Your task to perform on an android device: Open wifi settings Image 0: 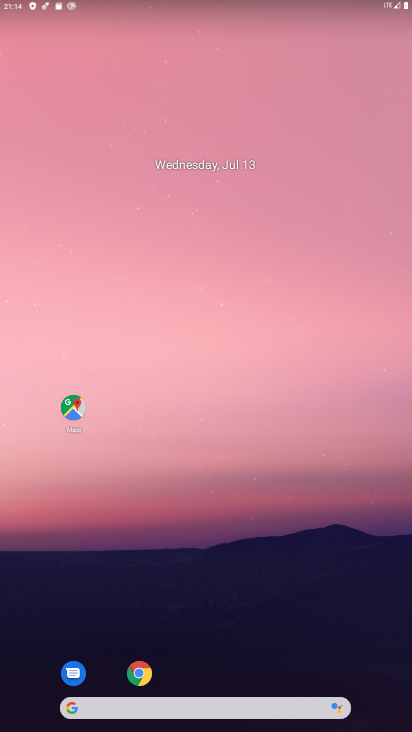
Step 0: click (389, 433)
Your task to perform on an android device: Open wifi settings Image 1: 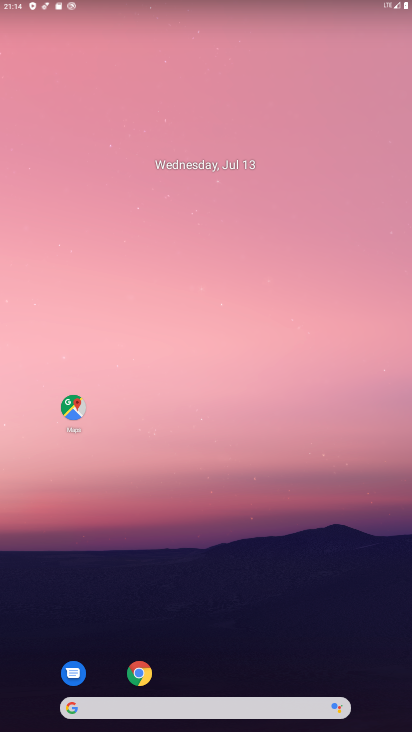
Step 1: drag from (192, 673) to (231, 147)
Your task to perform on an android device: Open wifi settings Image 2: 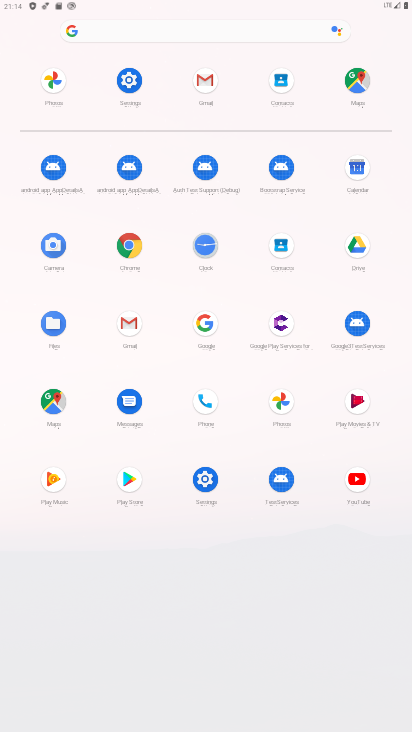
Step 2: click (202, 476)
Your task to perform on an android device: Open wifi settings Image 3: 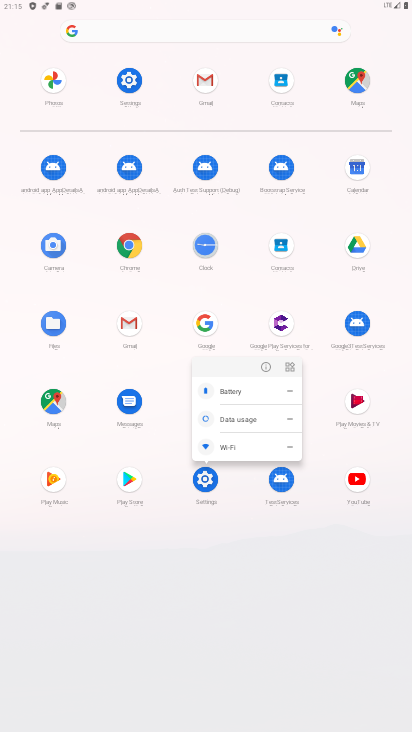
Step 3: click (267, 364)
Your task to perform on an android device: Open wifi settings Image 4: 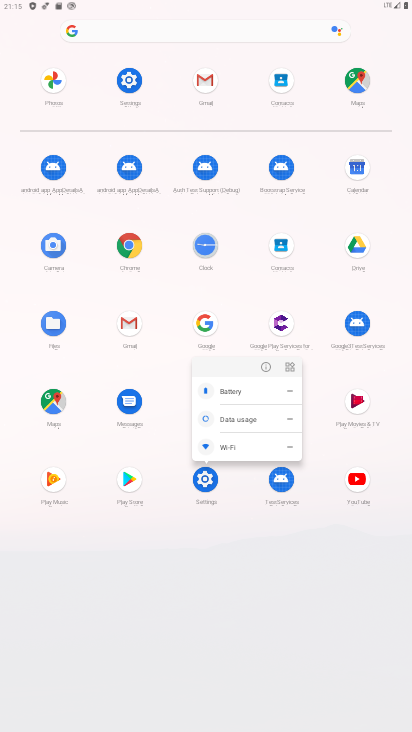
Step 4: click (267, 362)
Your task to perform on an android device: Open wifi settings Image 5: 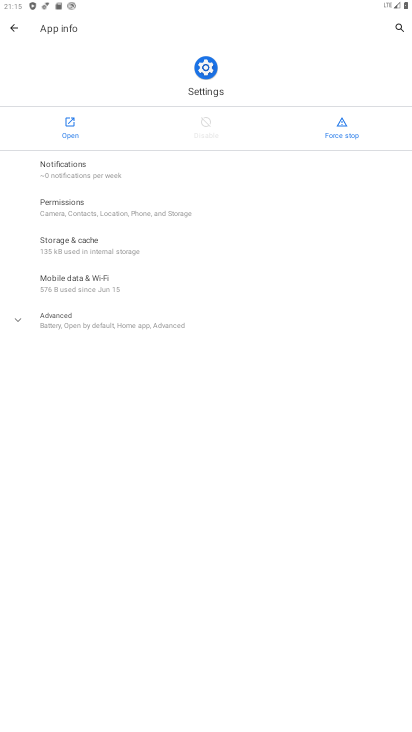
Step 5: click (67, 129)
Your task to perform on an android device: Open wifi settings Image 6: 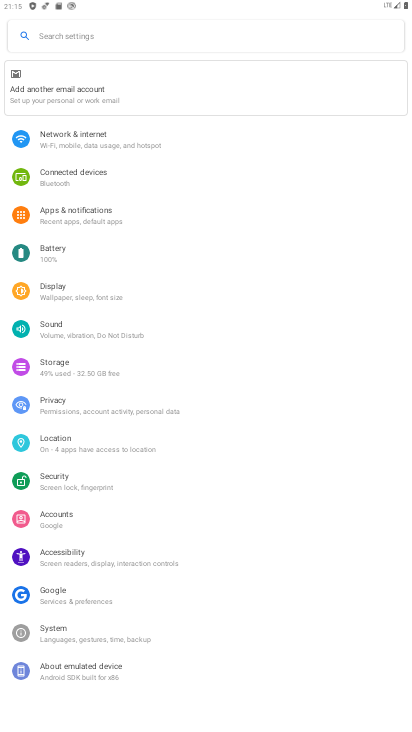
Step 6: drag from (109, 194) to (165, 615)
Your task to perform on an android device: Open wifi settings Image 7: 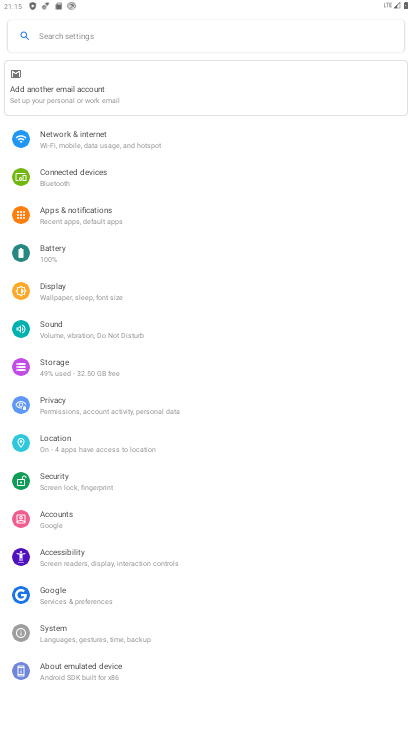
Step 7: click (167, 146)
Your task to perform on an android device: Open wifi settings Image 8: 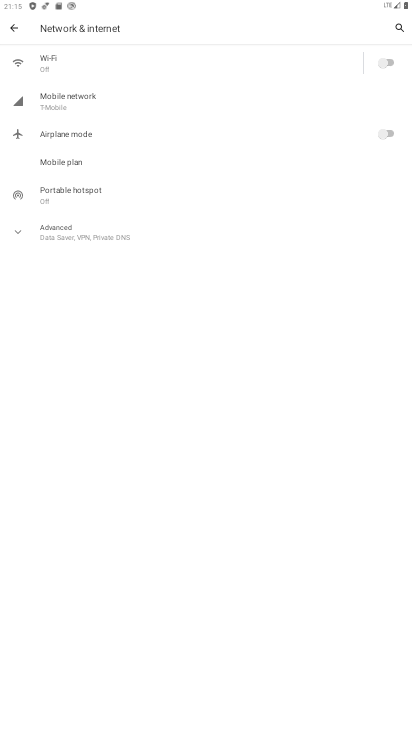
Step 8: click (84, 55)
Your task to perform on an android device: Open wifi settings Image 9: 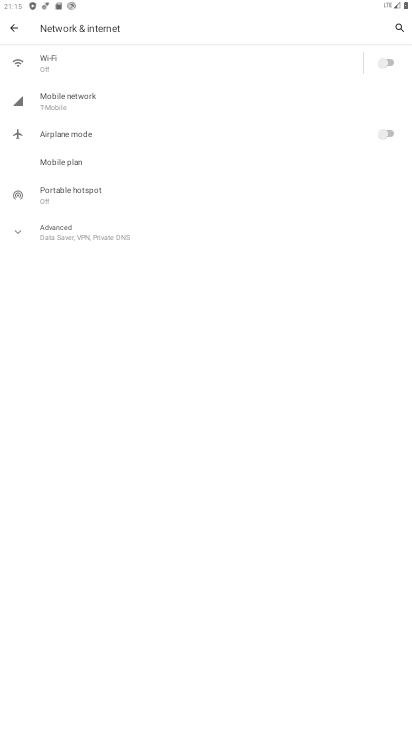
Step 9: click (84, 55)
Your task to perform on an android device: Open wifi settings Image 10: 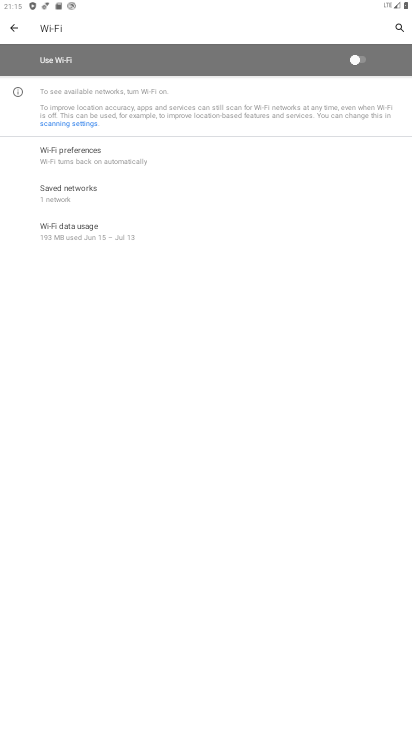
Step 10: click (19, 28)
Your task to perform on an android device: Open wifi settings Image 11: 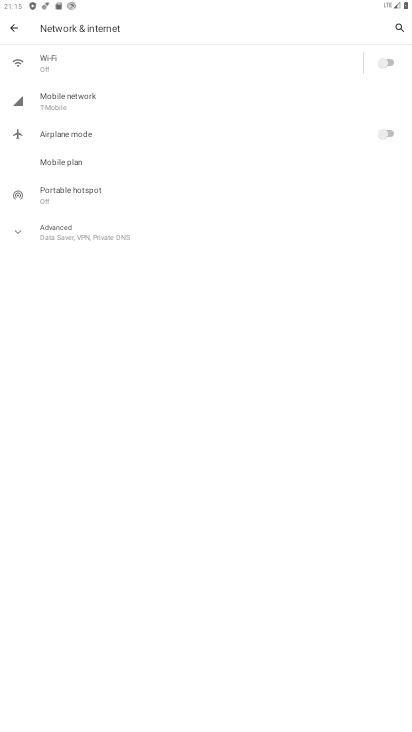
Step 11: click (305, 67)
Your task to perform on an android device: Open wifi settings Image 12: 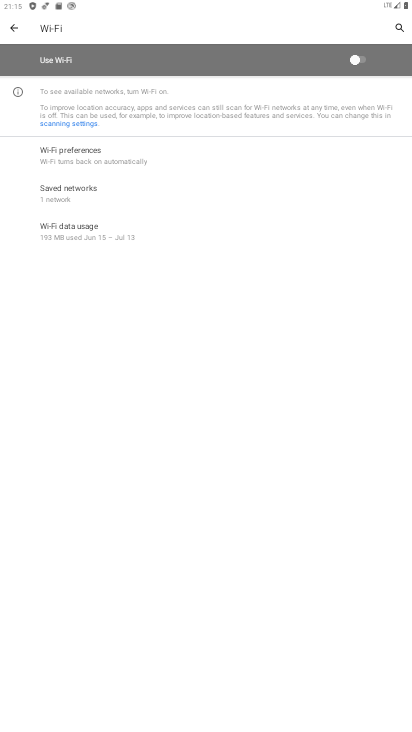
Step 12: task complete